Your task to perform on an android device: Open Amazon Image 0: 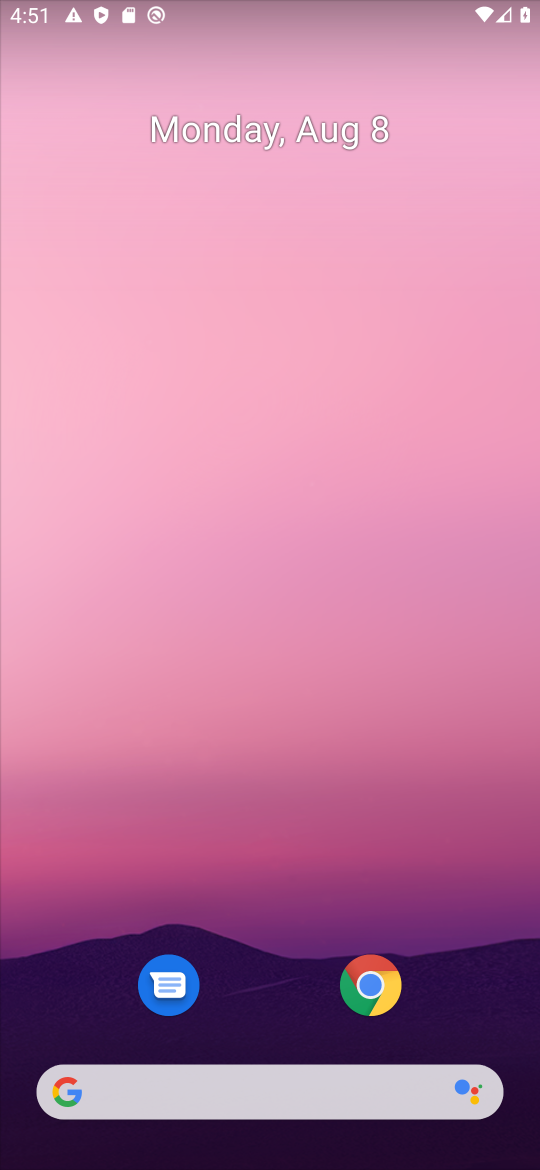
Step 0: click (356, 975)
Your task to perform on an android device: Open Amazon Image 1: 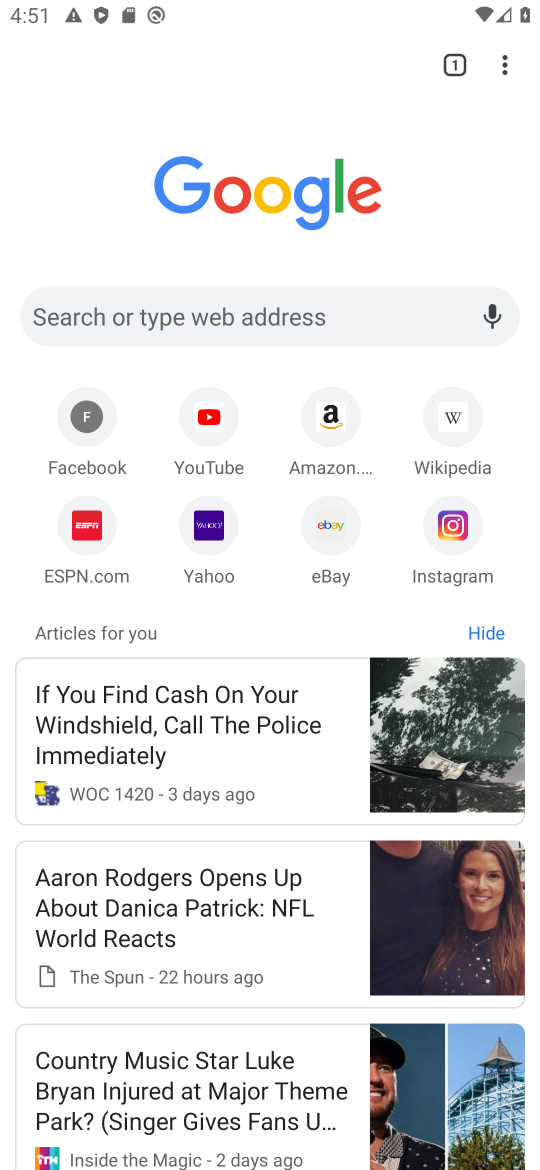
Step 1: click (335, 428)
Your task to perform on an android device: Open Amazon Image 2: 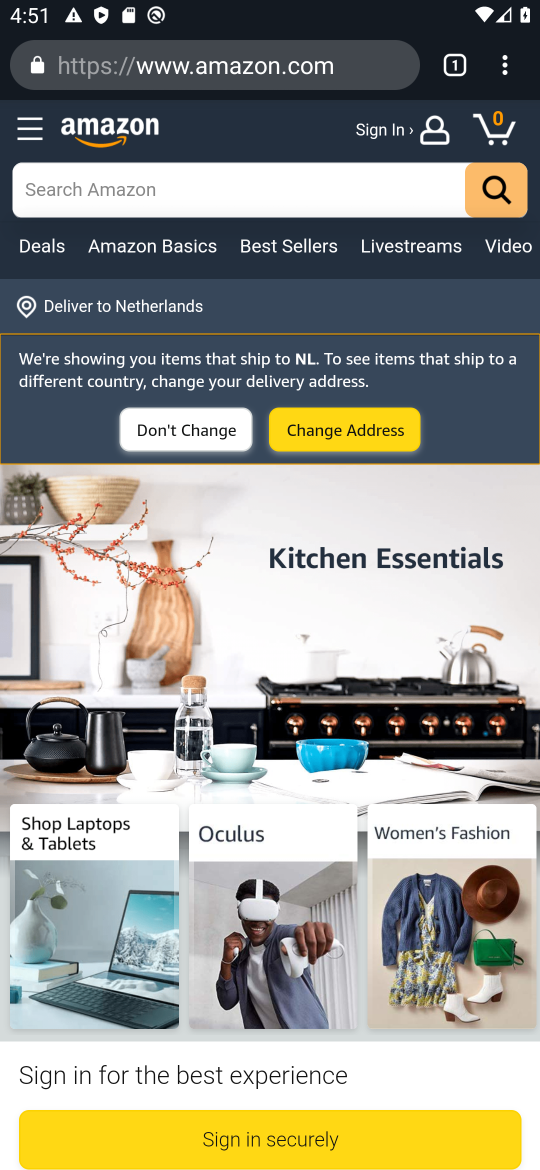
Step 2: task complete